Your task to perform on an android device: Open the calendar app, open the side menu, and click the "Day" option Image 0: 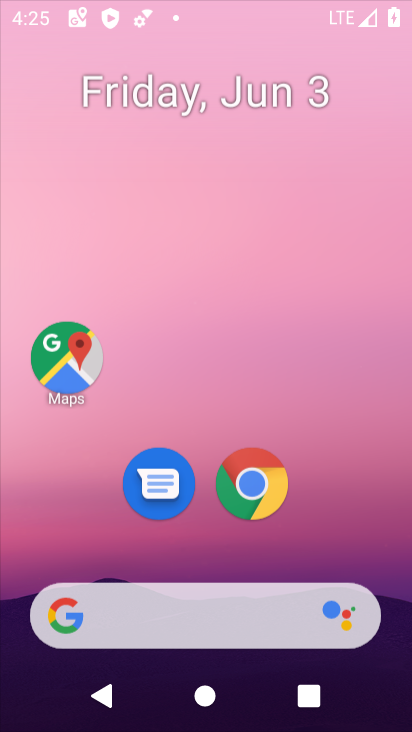
Step 0: click (298, 4)
Your task to perform on an android device: Open the calendar app, open the side menu, and click the "Day" option Image 1: 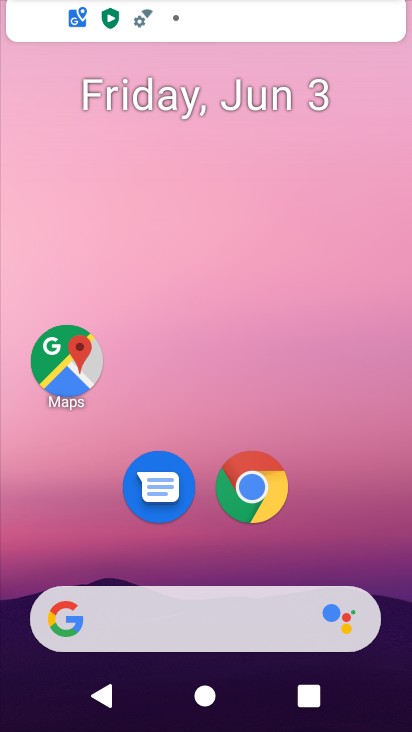
Step 1: drag from (217, 504) to (257, 134)
Your task to perform on an android device: Open the calendar app, open the side menu, and click the "Day" option Image 2: 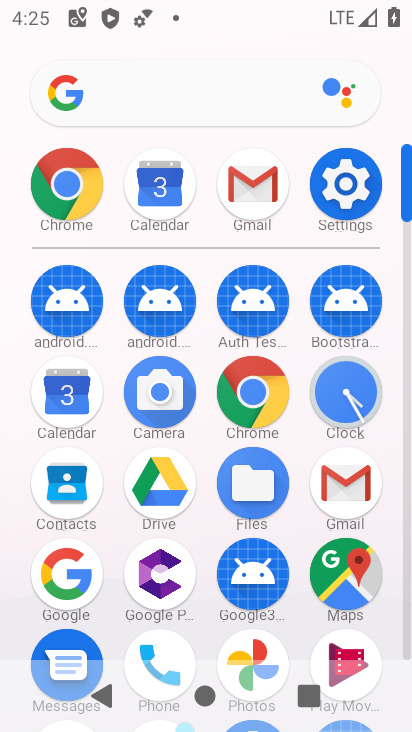
Step 2: click (69, 377)
Your task to perform on an android device: Open the calendar app, open the side menu, and click the "Day" option Image 3: 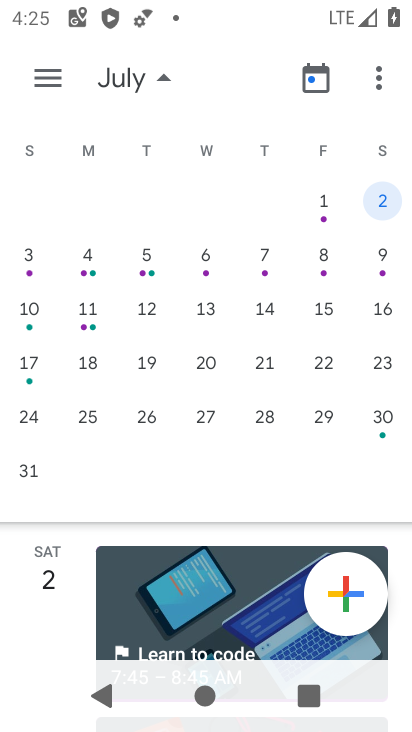
Step 3: click (57, 69)
Your task to perform on an android device: Open the calendar app, open the side menu, and click the "Day" option Image 4: 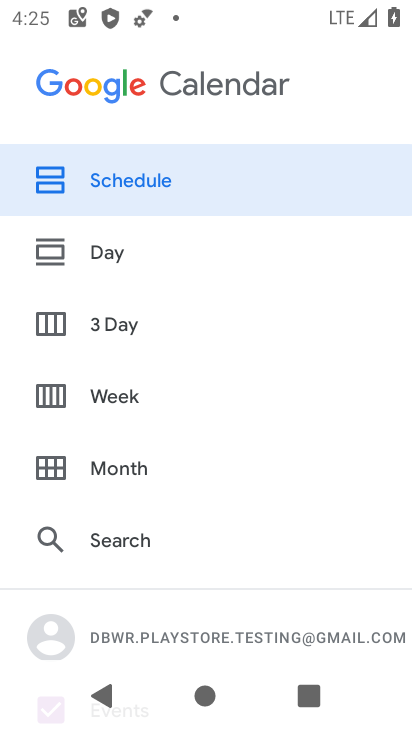
Step 4: click (313, 162)
Your task to perform on an android device: Open the calendar app, open the side menu, and click the "Day" option Image 5: 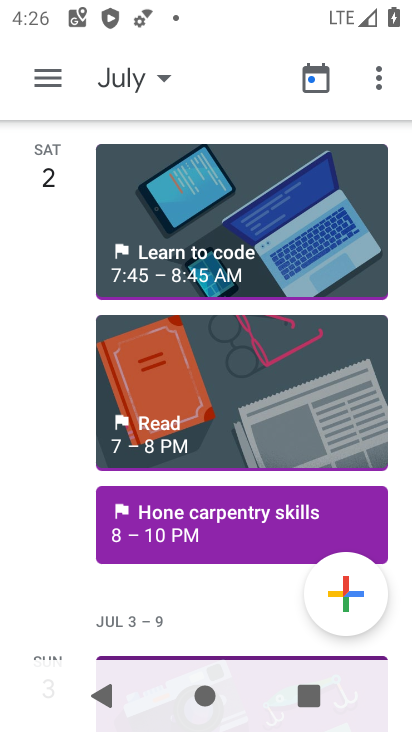
Step 5: click (51, 79)
Your task to perform on an android device: Open the calendar app, open the side menu, and click the "Day" option Image 6: 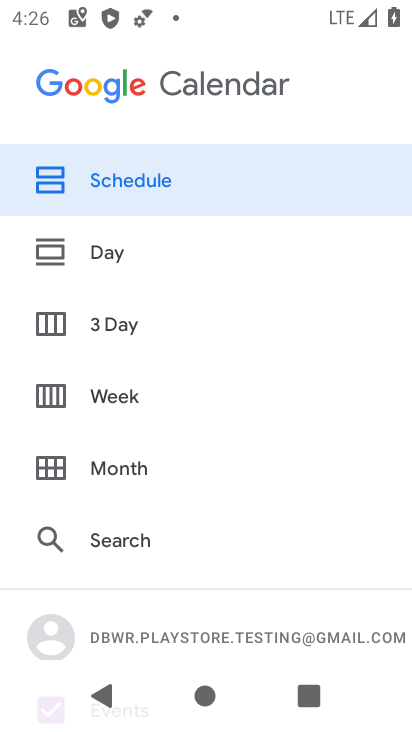
Step 6: click (116, 254)
Your task to perform on an android device: Open the calendar app, open the side menu, and click the "Day" option Image 7: 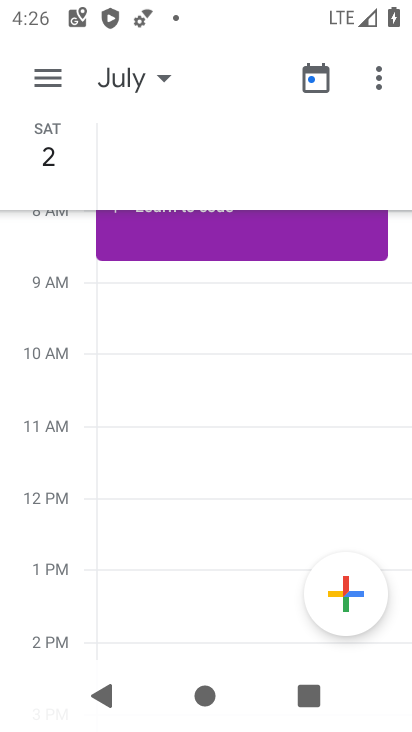
Step 7: task complete